Your task to perform on an android device: Show me popular videos on Youtube Image 0: 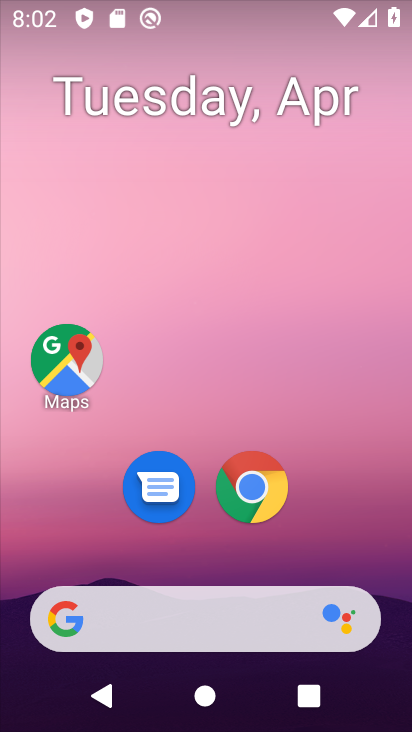
Step 0: drag from (198, 586) to (194, 299)
Your task to perform on an android device: Show me popular videos on Youtube Image 1: 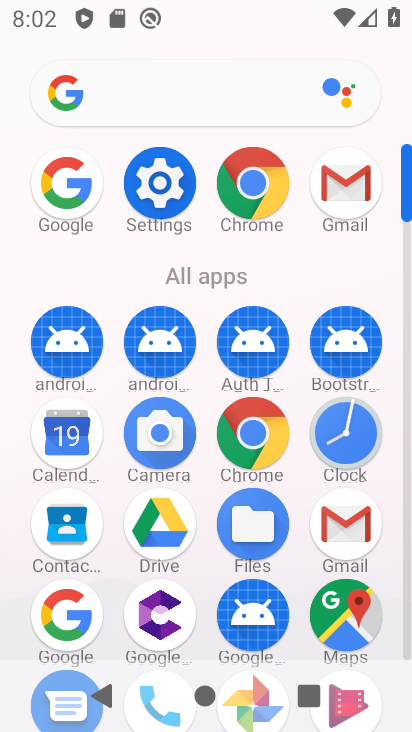
Step 1: drag from (209, 630) to (196, 343)
Your task to perform on an android device: Show me popular videos on Youtube Image 2: 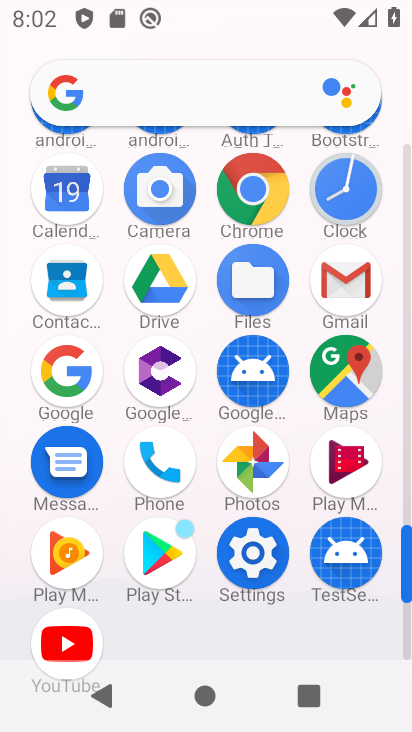
Step 2: click (63, 639)
Your task to perform on an android device: Show me popular videos on Youtube Image 3: 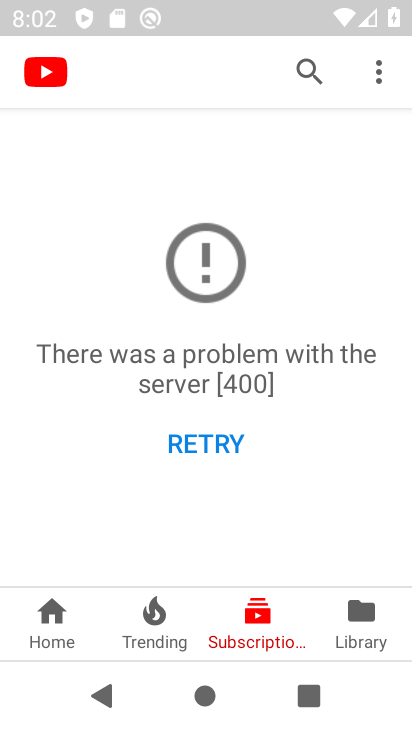
Step 3: task complete